Your task to perform on an android device: Add energizer triple a to the cart on costco, then select checkout. Image 0: 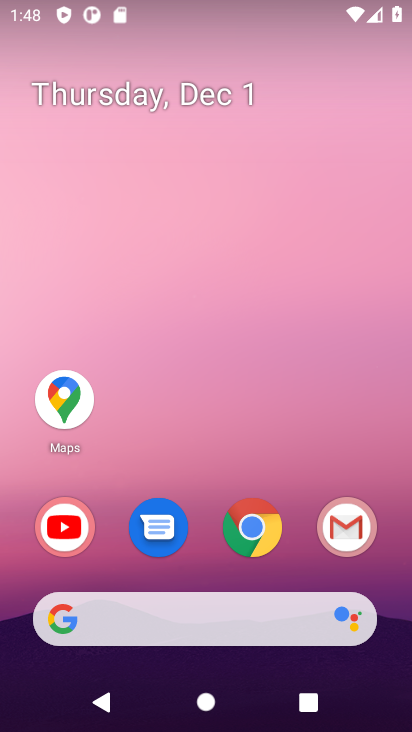
Step 0: click (254, 535)
Your task to perform on an android device: Add energizer triple a to the cart on costco, then select checkout. Image 1: 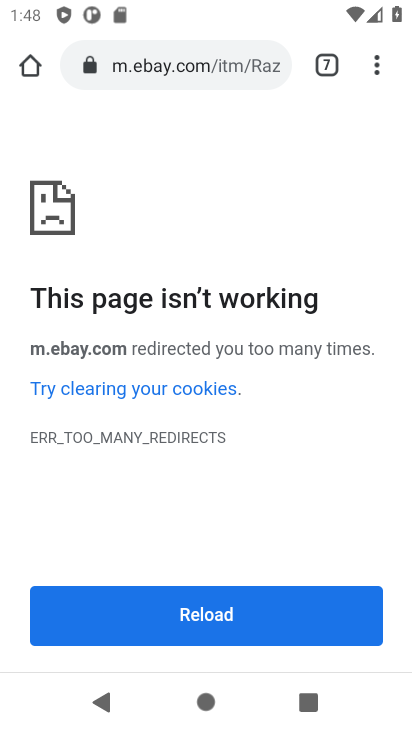
Step 1: click (165, 67)
Your task to perform on an android device: Add energizer triple a to the cart on costco, then select checkout. Image 2: 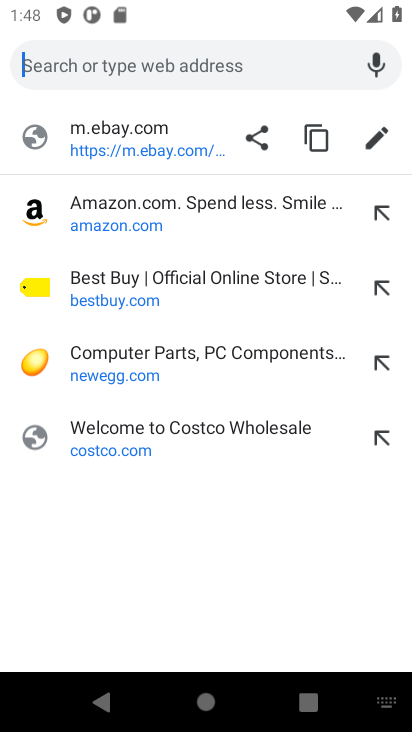
Step 2: click (123, 451)
Your task to perform on an android device: Add energizer triple a to the cart on costco, then select checkout. Image 3: 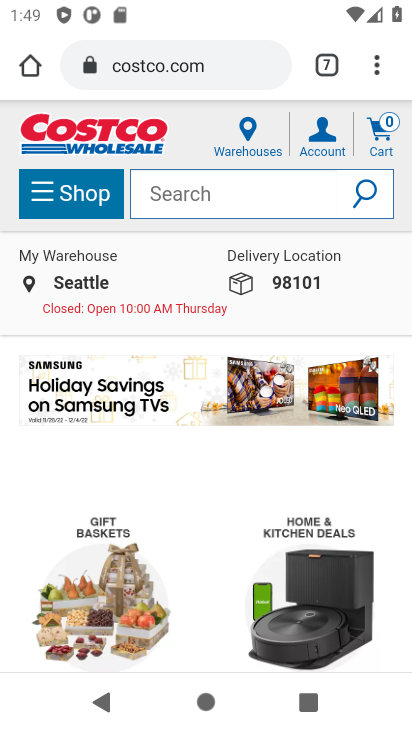
Step 3: click (268, 193)
Your task to perform on an android device: Add energizer triple a to the cart on costco, then select checkout. Image 4: 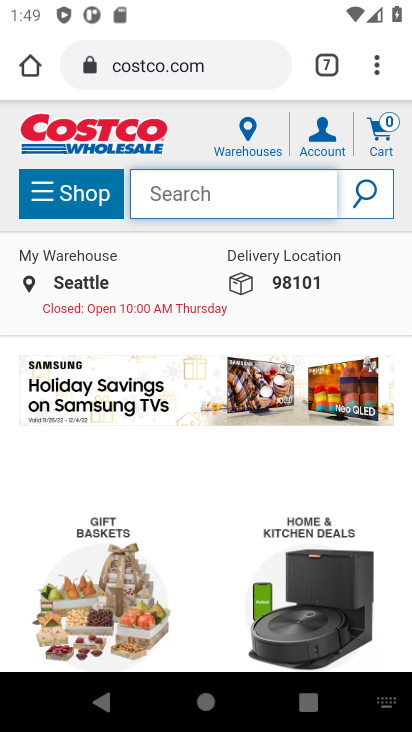
Step 4: type "energizer triple a "
Your task to perform on an android device: Add energizer triple a to the cart on costco, then select checkout. Image 5: 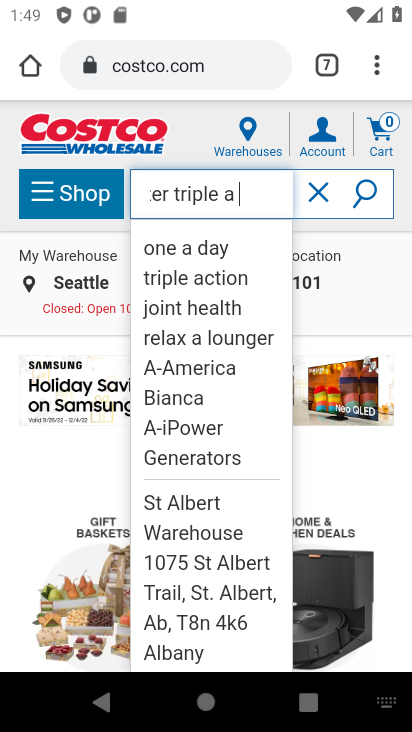
Step 5: click (369, 186)
Your task to perform on an android device: Add energizer triple a to the cart on costco, then select checkout. Image 6: 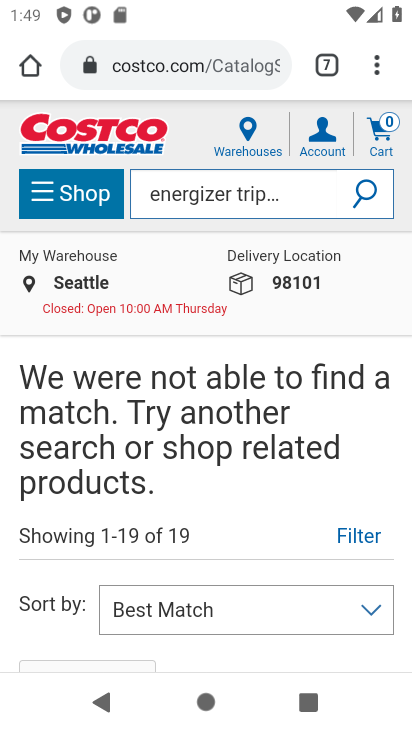
Step 6: task complete